Your task to perform on an android device: turn off wifi Image 0: 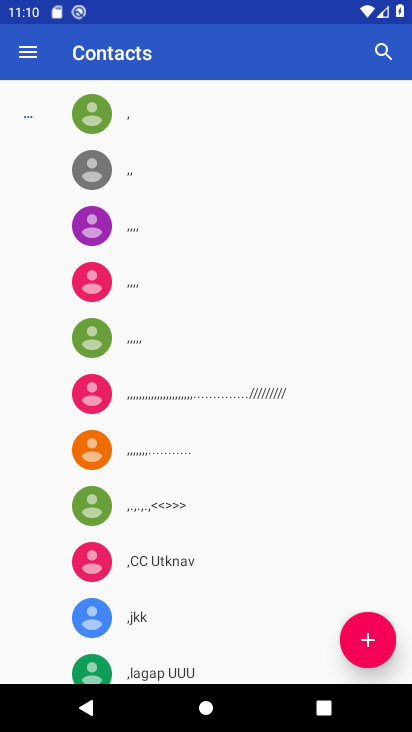
Step 0: press home button
Your task to perform on an android device: turn off wifi Image 1: 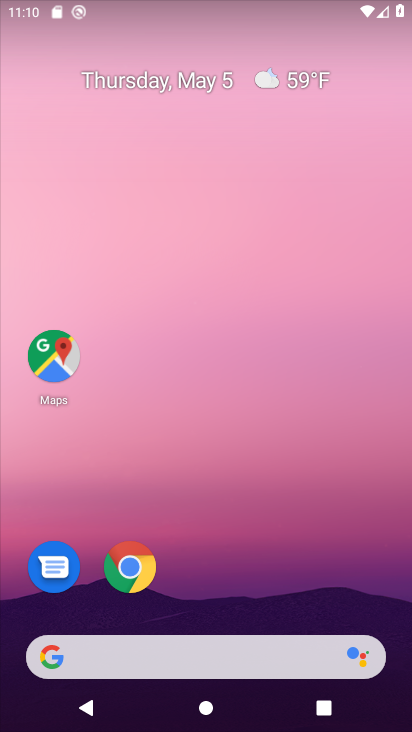
Step 1: drag from (270, 601) to (241, 2)
Your task to perform on an android device: turn off wifi Image 2: 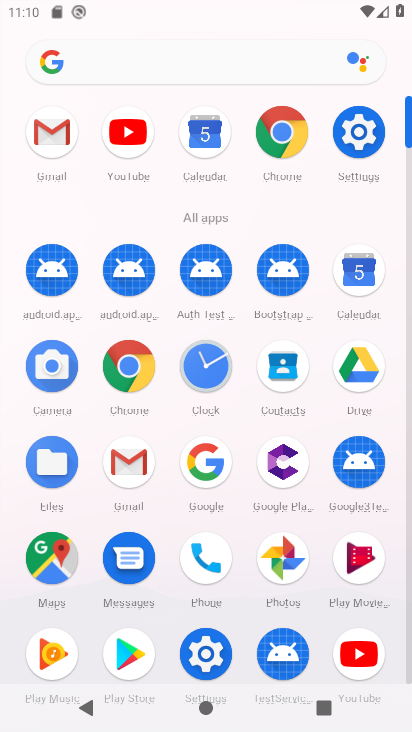
Step 2: click (359, 144)
Your task to perform on an android device: turn off wifi Image 3: 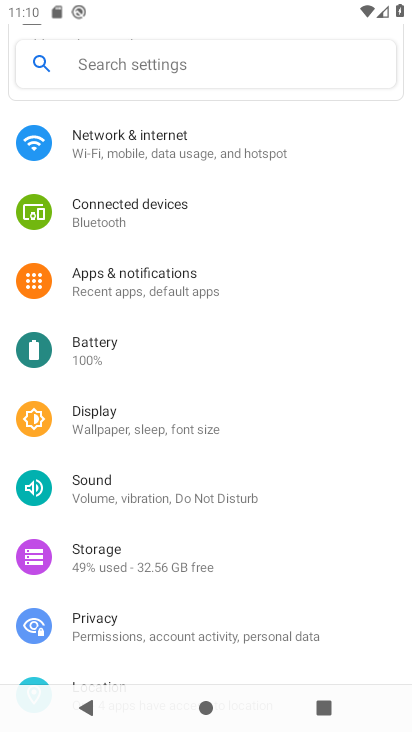
Step 3: click (129, 151)
Your task to perform on an android device: turn off wifi Image 4: 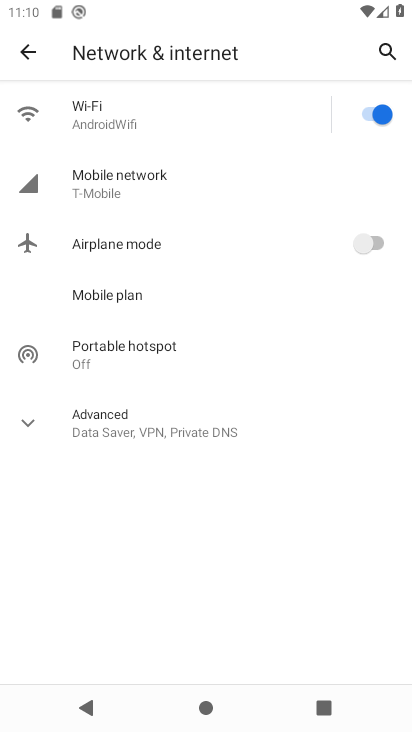
Step 4: click (375, 123)
Your task to perform on an android device: turn off wifi Image 5: 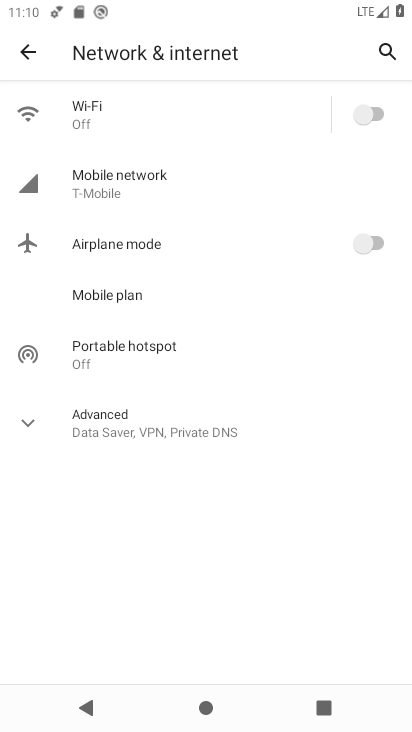
Step 5: task complete